Your task to perform on an android device: Search for seafood restaurants on Google Maps Image 0: 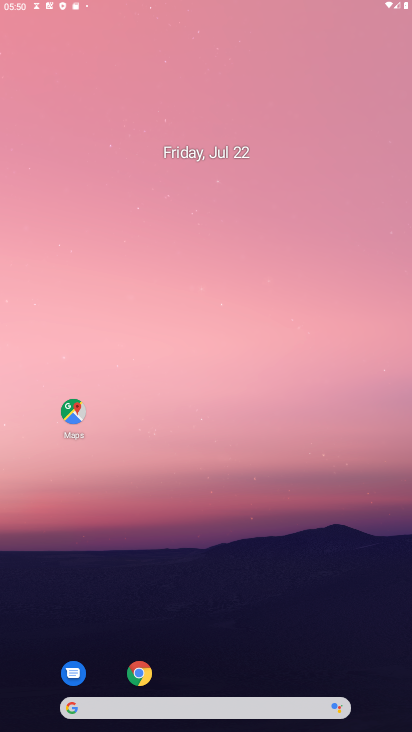
Step 0: press home button
Your task to perform on an android device: Search for seafood restaurants on Google Maps Image 1: 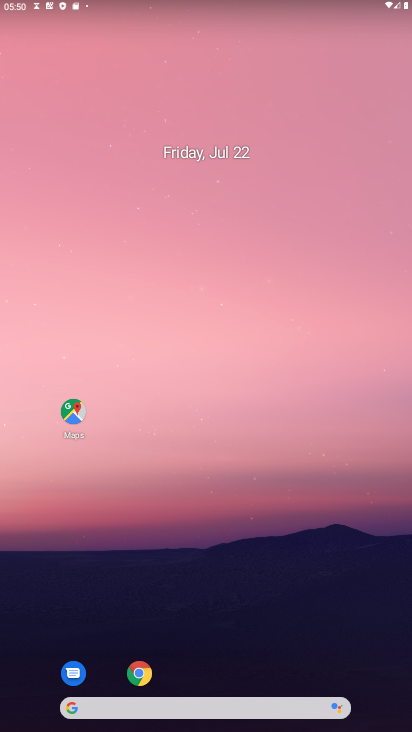
Step 1: drag from (320, 645) to (328, 212)
Your task to perform on an android device: Search for seafood restaurants on Google Maps Image 2: 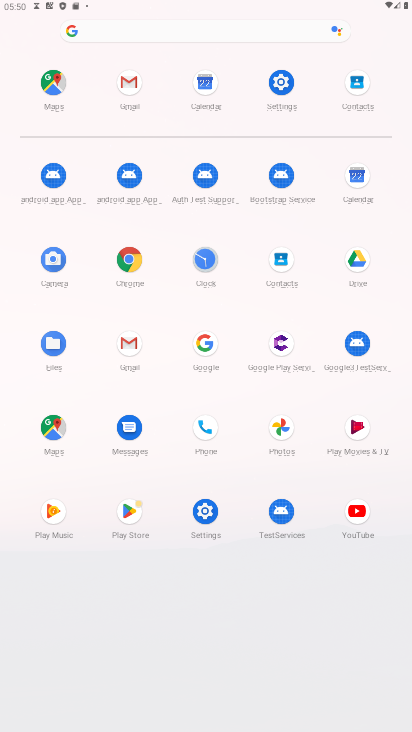
Step 2: click (51, 83)
Your task to perform on an android device: Search for seafood restaurants on Google Maps Image 3: 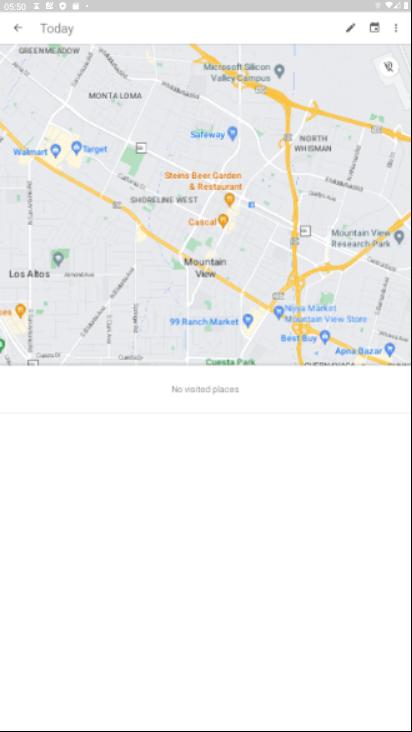
Step 3: click (97, 39)
Your task to perform on an android device: Search for seafood restaurants on Google Maps Image 4: 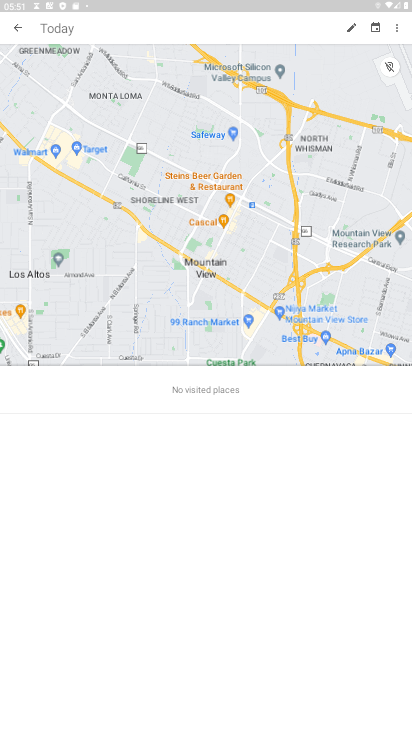
Step 4: click (114, 20)
Your task to perform on an android device: Search for seafood restaurants on Google Maps Image 5: 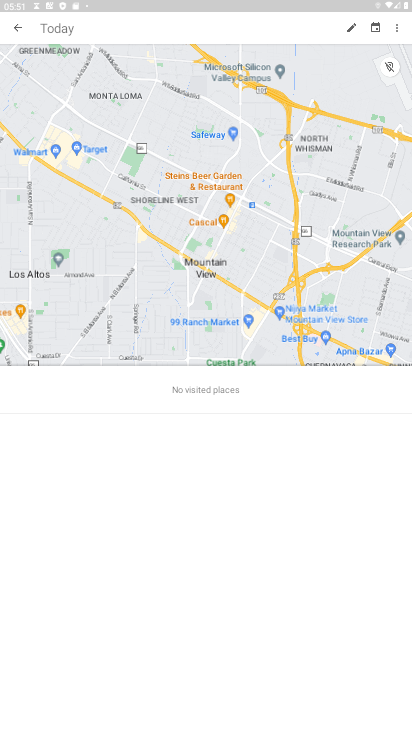
Step 5: type "seafood restaurants "
Your task to perform on an android device: Search for seafood restaurants on Google Maps Image 6: 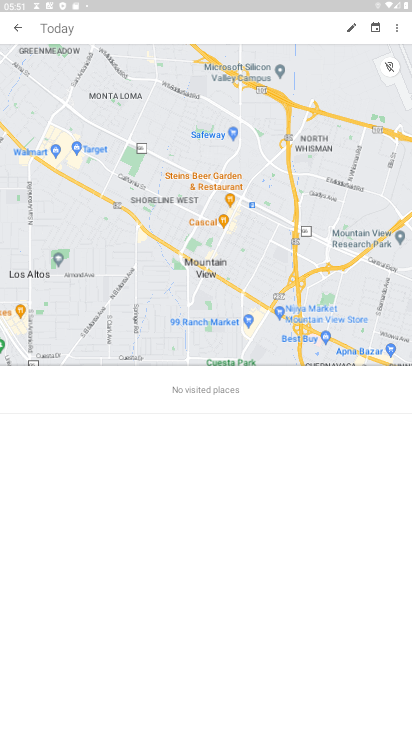
Step 6: click (117, 30)
Your task to perform on an android device: Search for seafood restaurants on Google Maps Image 7: 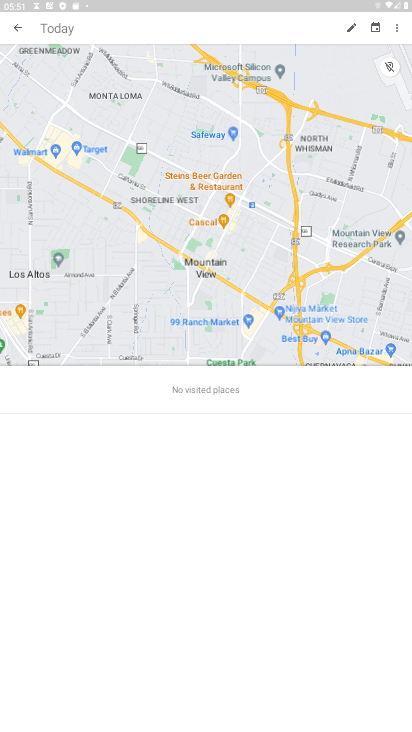
Step 7: click (18, 28)
Your task to perform on an android device: Search for seafood restaurants on Google Maps Image 8: 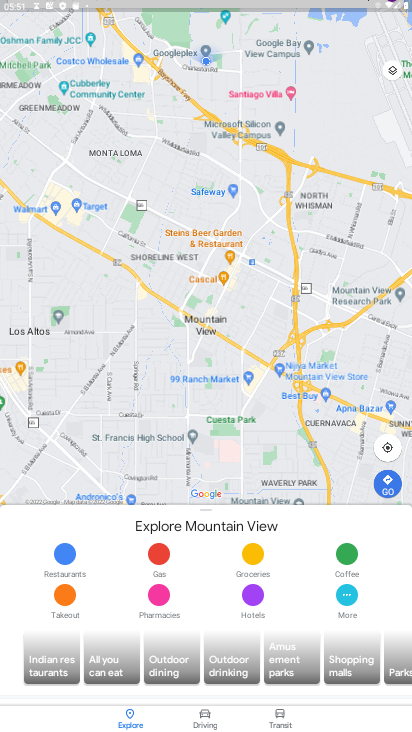
Step 8: click (110, 31)
Your task to perform on an android device: Search for seafood restaurants on Google Maps Image 9: 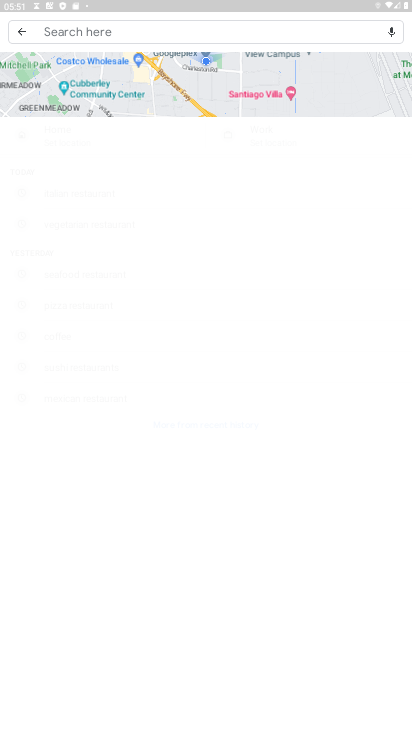
Step 9: click (125, 25)
Your task to perform on an android device: Search for seafood restaurants on Google Maps Image 10: 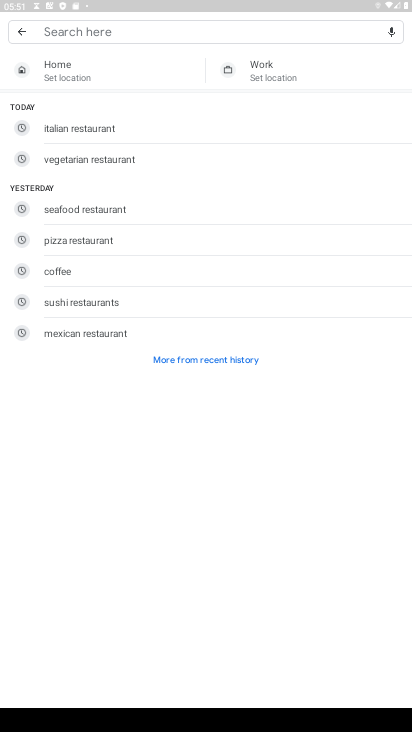
Step 10: click (97, 216)
Your task to perform on an android device: Search for seafood restaurants on Google Maps Image 11: 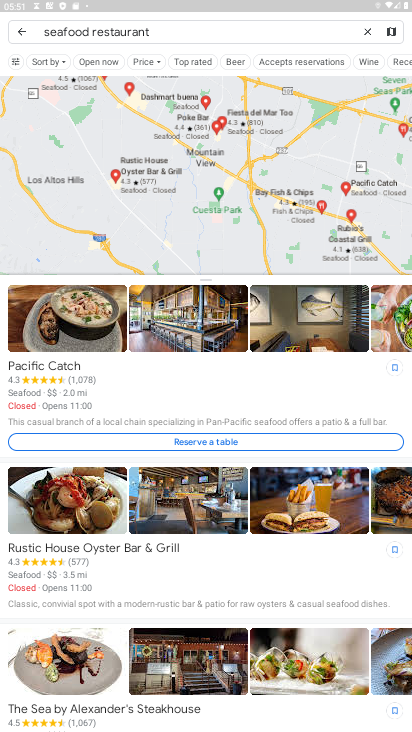
Step 11: task complete